Your task to perform on an android device: open a bookmark in the chrome app Image 0: 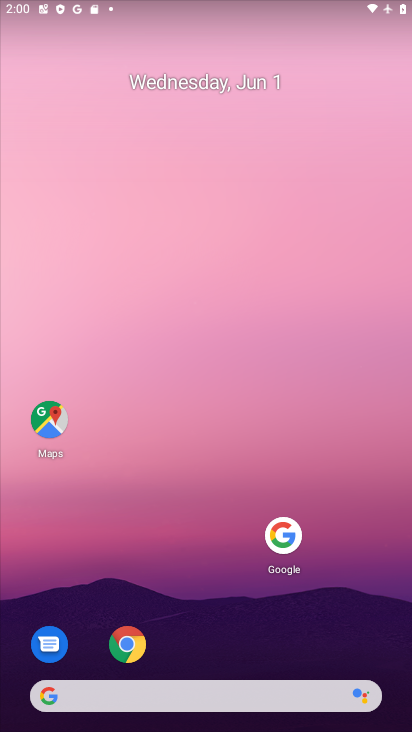
Step 0: click (132, 641)
Your task to perform on an android device: open a bookmark in the chrome app Image 1: 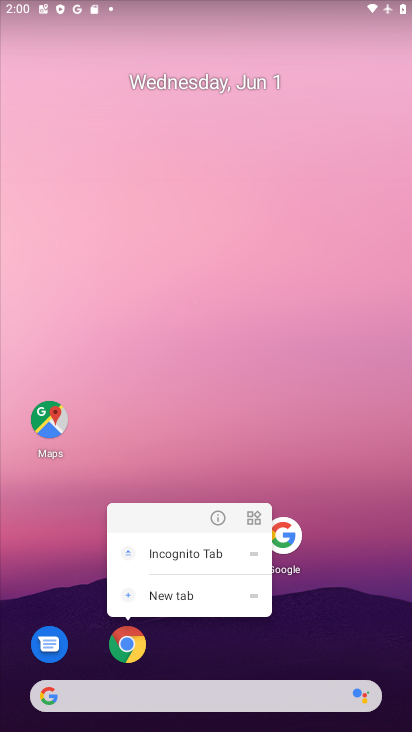
Step 1: click (125, 645)
Your task to perform on an android device: open a bookmark in the chrome app Image 2: 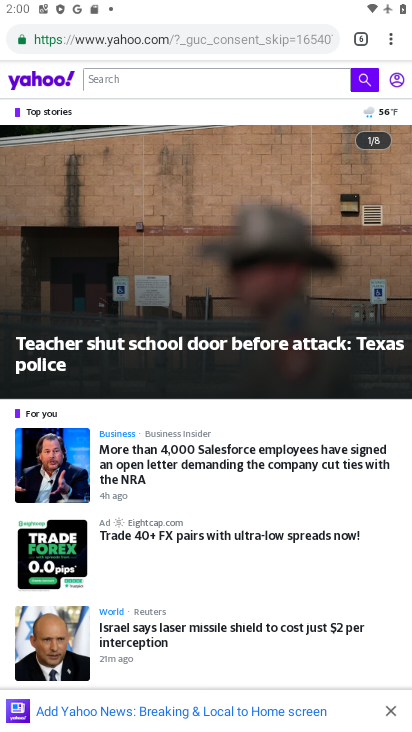
Step 2: task complete